Your task to perform on an android device: Open wifi settings Image 0: 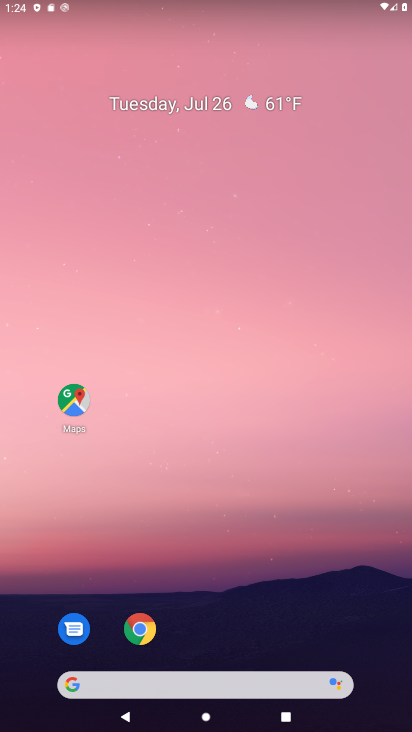
Step 0: drag from (212, 4) to (218, 505)
Your task to perform on an android device: Open wifi settings Image 1: 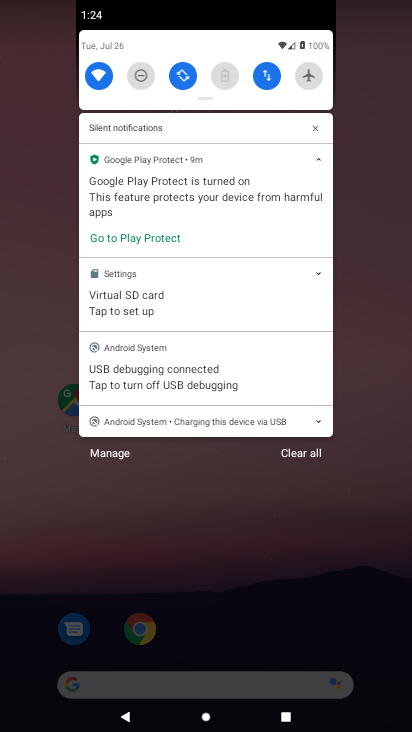
Step 1: click (104, 73)
Your task to perform on an android device: Open wifi settings Image 2: 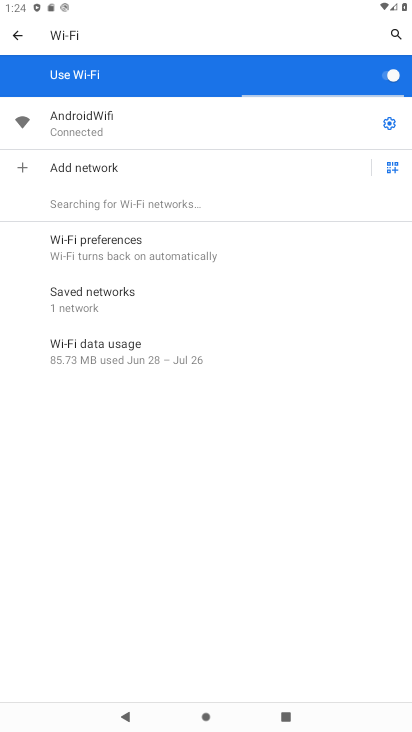
Step 2: task complete